Your task to perform on an android device: Go to Google Image 0: 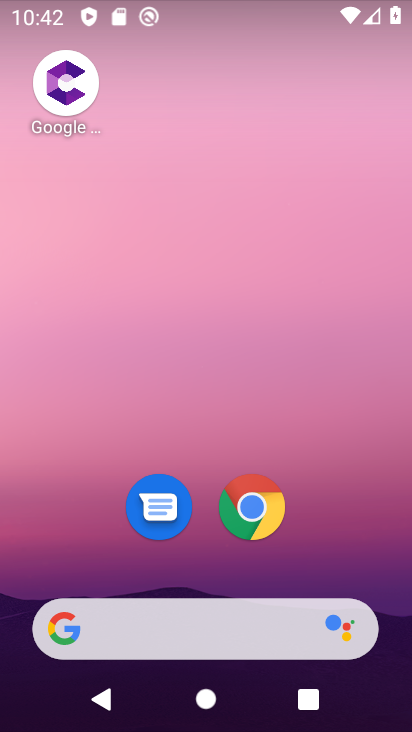
Step 0: click (182, 614)
Your task to perform on an android device: Go to Google Image 1: 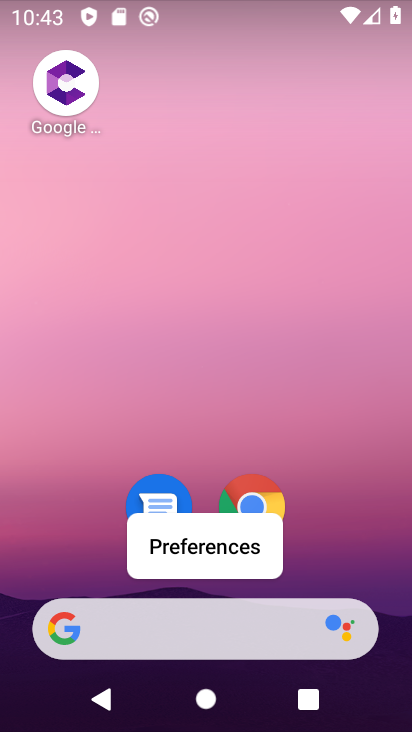
Step 1: click (207, 624)
Your task to perform on an android device: Go to Google Image 2: 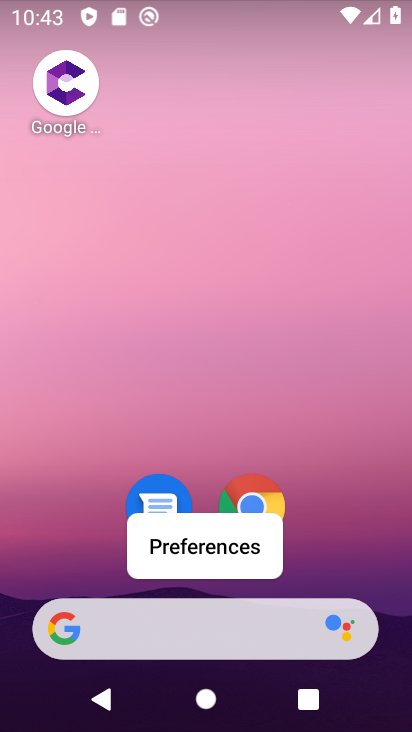
Step 2: click (197, 637)
Your task to perform on an android device: Go to Google Image 3: 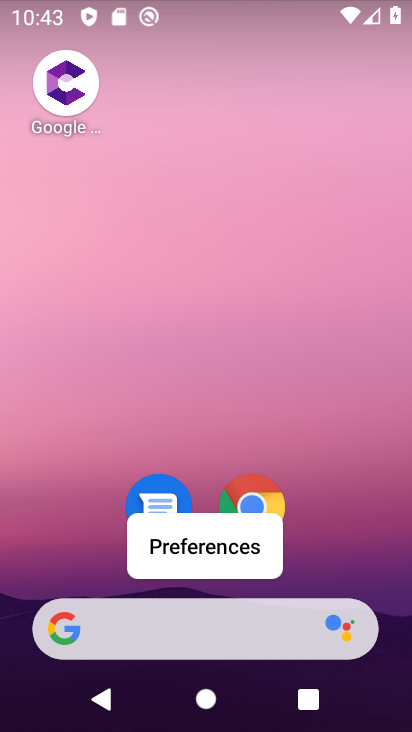
Step 3: click (93, 628)
Your task to perform on an android device: Go to Google Image 4: 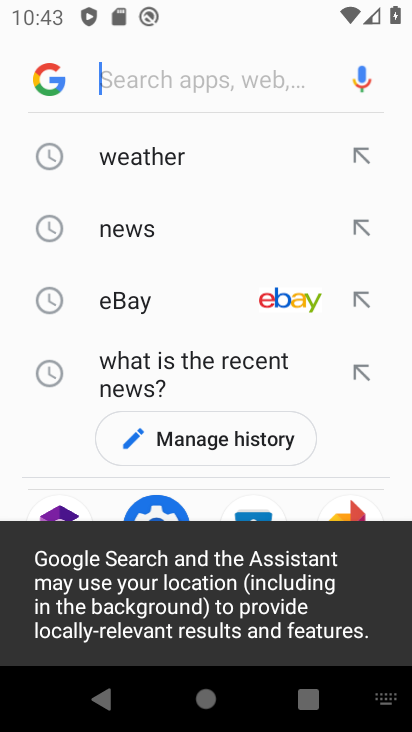
Step 4: click (64, 78)
Your task to perform on an android device: Go to Google Image 5: 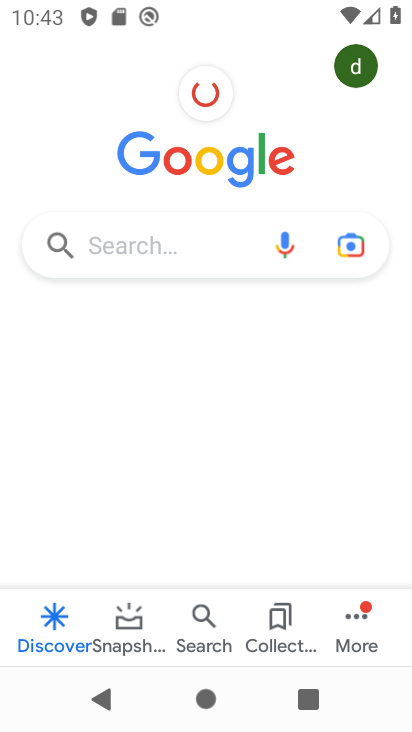
Step 5: task complete